Your task to perform on an android device: When is my next meeting? Image 0: 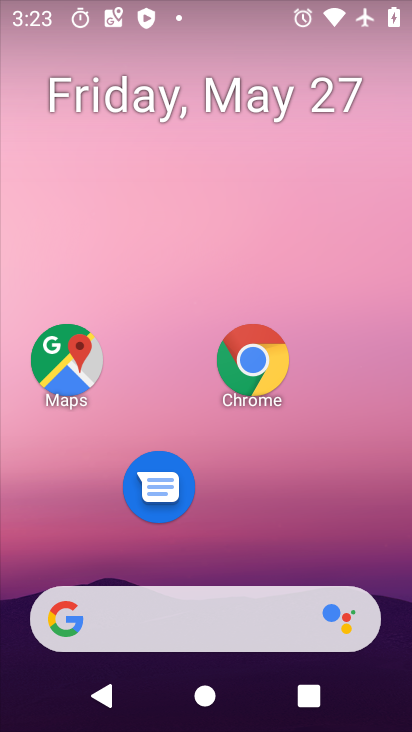
Step 0: drag from (248, 355) to (254, 81)
Your task to perform on an android device: When is my next meeting? Image 1: 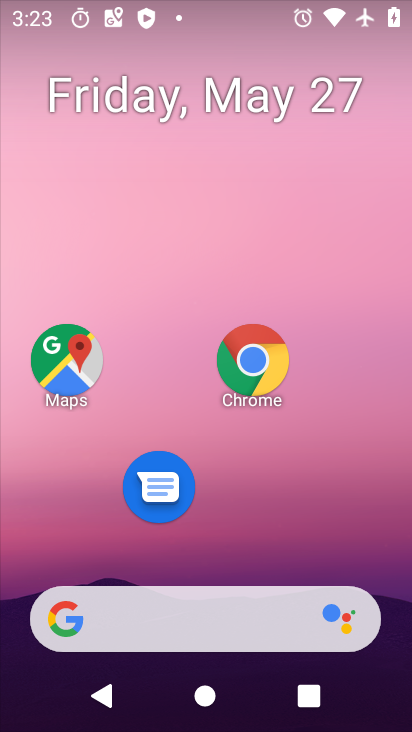
Step 1: drag from (238, 513) to (261, 53)
Your task to perform on an android device: When is my next meeting? Image 2: 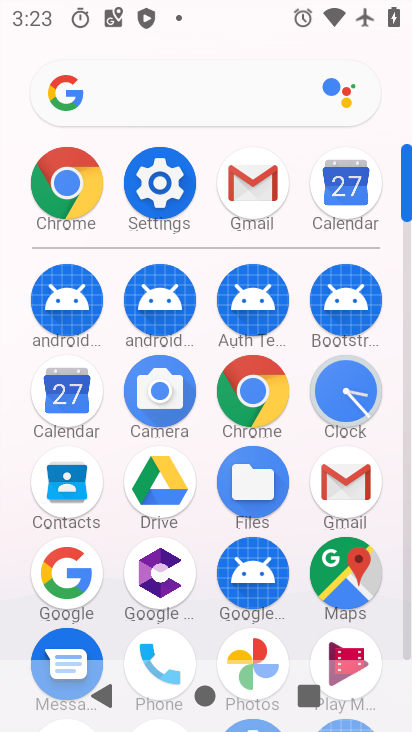
Step 2: click (67, 398)
Your task to perform on an android device: When is my next meeting? Image 3: 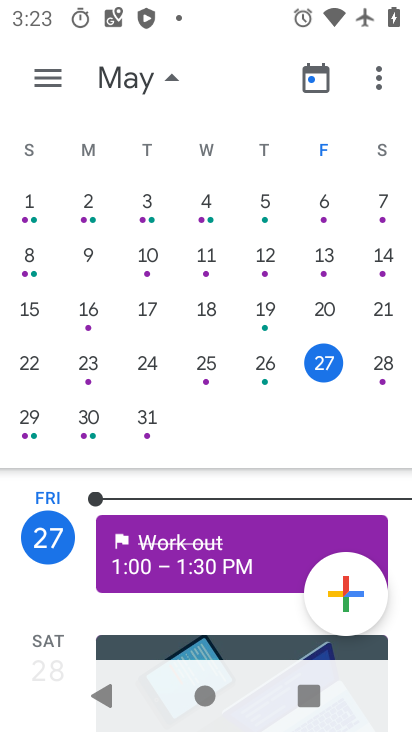
Step 3: click (379, 361)
Your task to perform on an android device: When is my next meeting? Image 4: 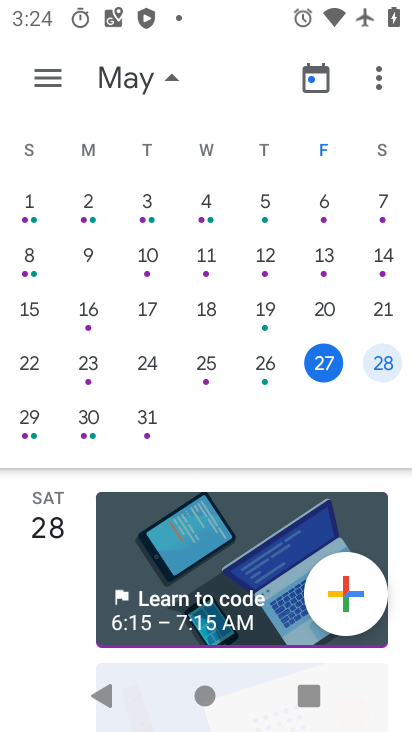
Step 4: task complete